Your task to perform on an android device: open app "eBay: The shopping marketplace" (install if not already installed) Image 0: 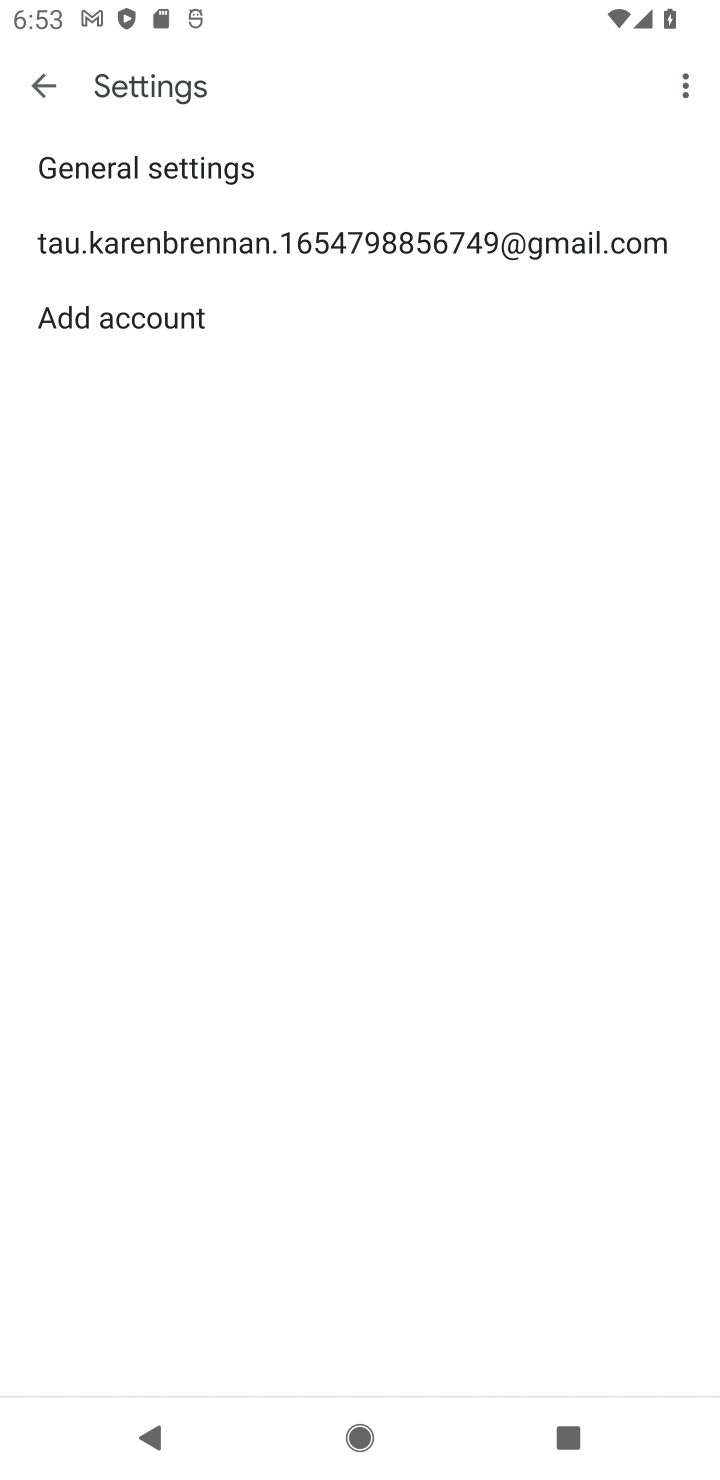
Step 0: press home button
Your task to perform on an android device: open app "eBay: The shopping marketplace" (install if not already installed) Image 1: 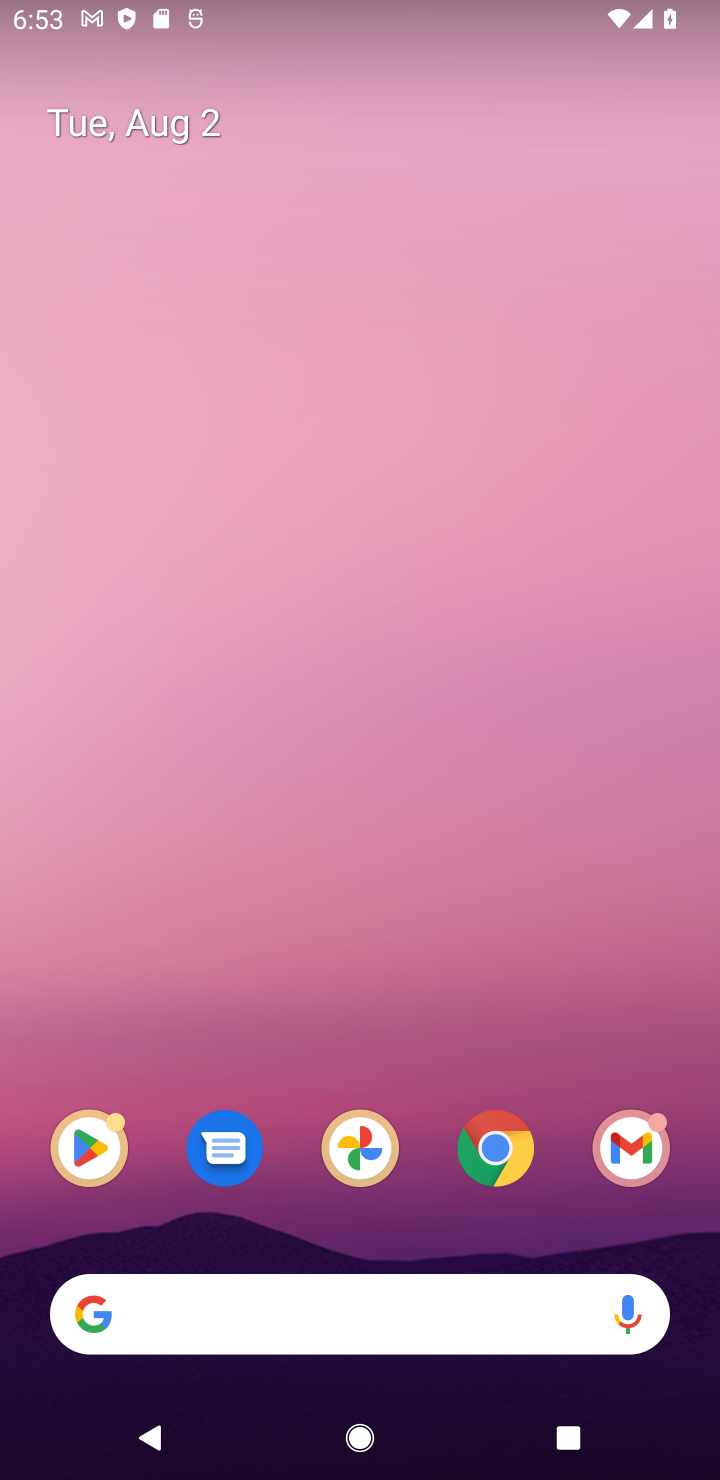
Step 1: drag from (566, 1138) to (395, 65)
Your task to perform on an android device: open app "eBay: The shopping marketplace" (install if not already installed) Image 2: 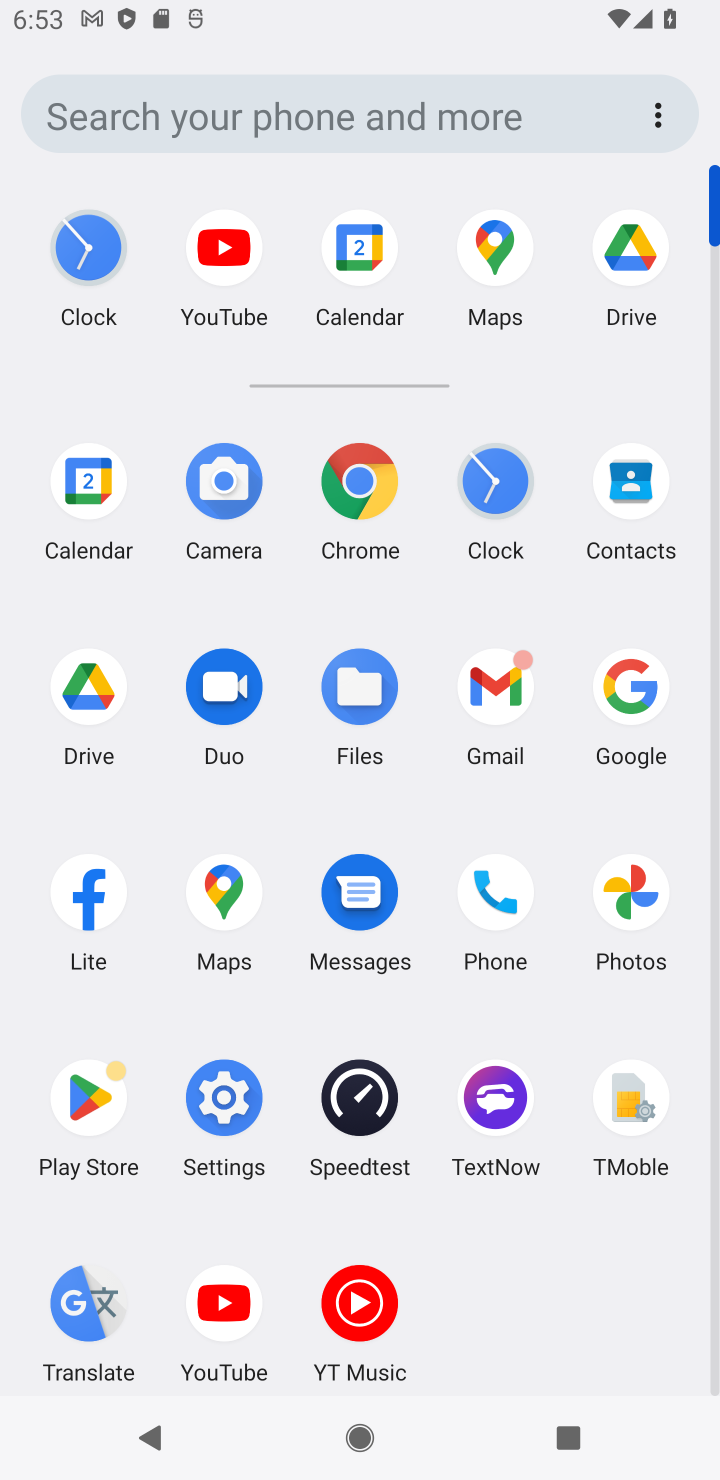
Step 2: click (206, 1320)
Your task to perform on an android device: open app "eBay: The shopping marketplace" (install if not already installed) Image 3: 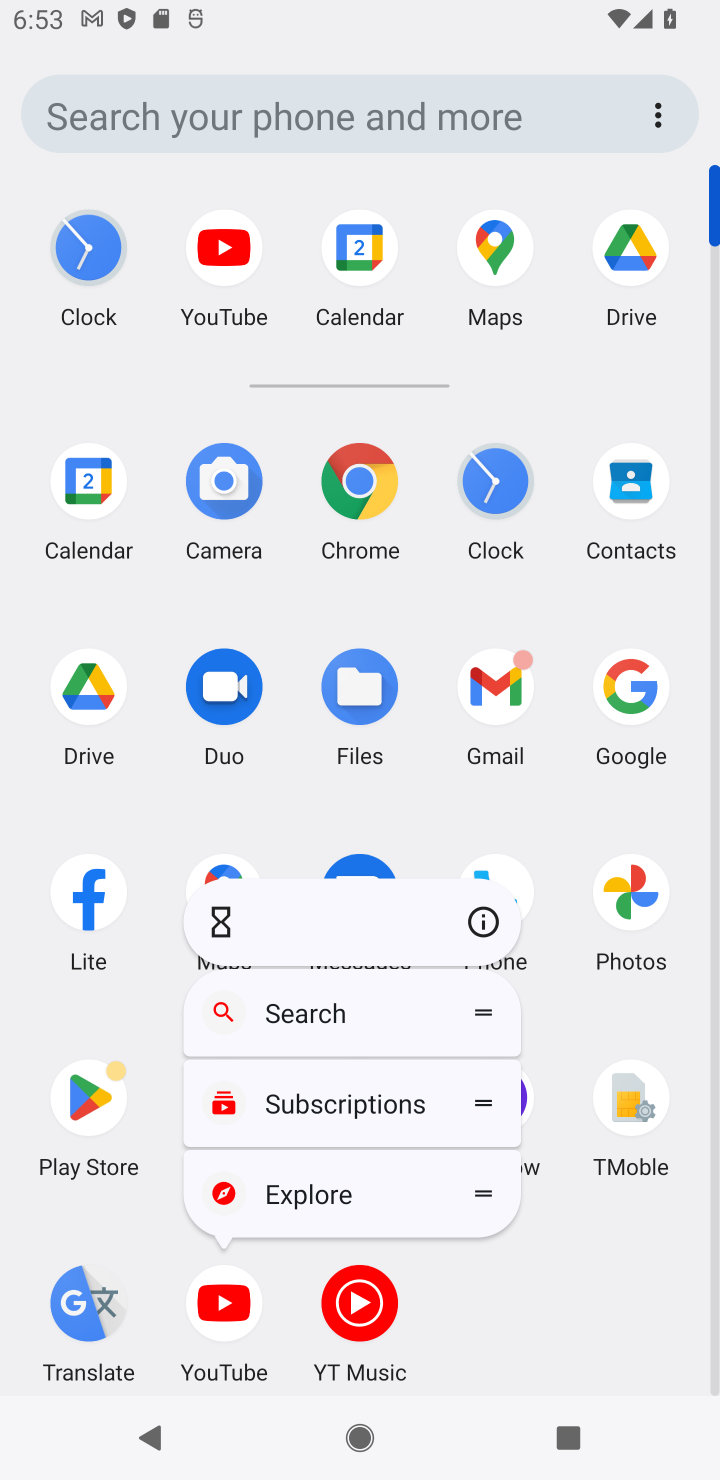
Step 3: click (81, 1090)
Your task to perform on an android device: open app "eBay: The shopping marketplace" (install if not already installed) Image 4: 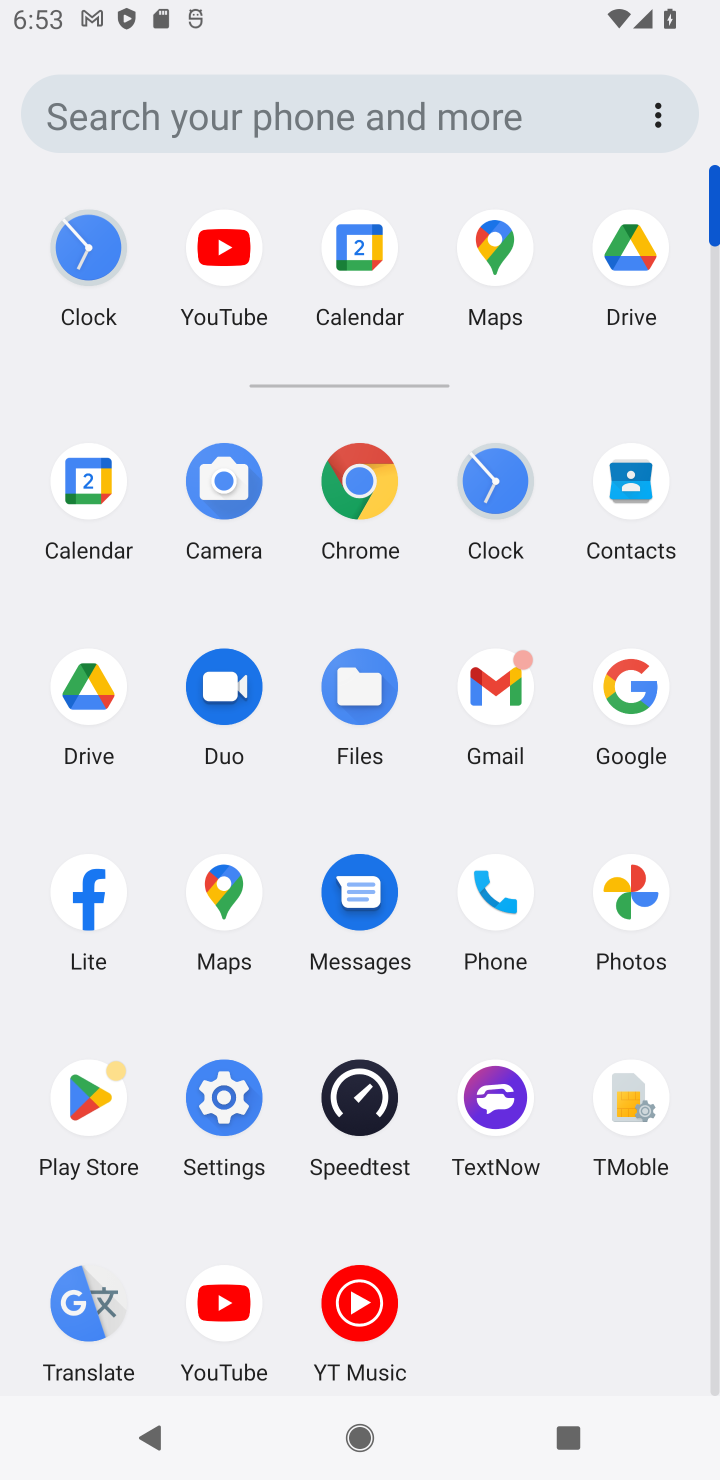
Step 4: click (81, 1090)
Your task to perform on an android device: open app "eBay: The shopping marketplace" (install if not already installed) Image 5: 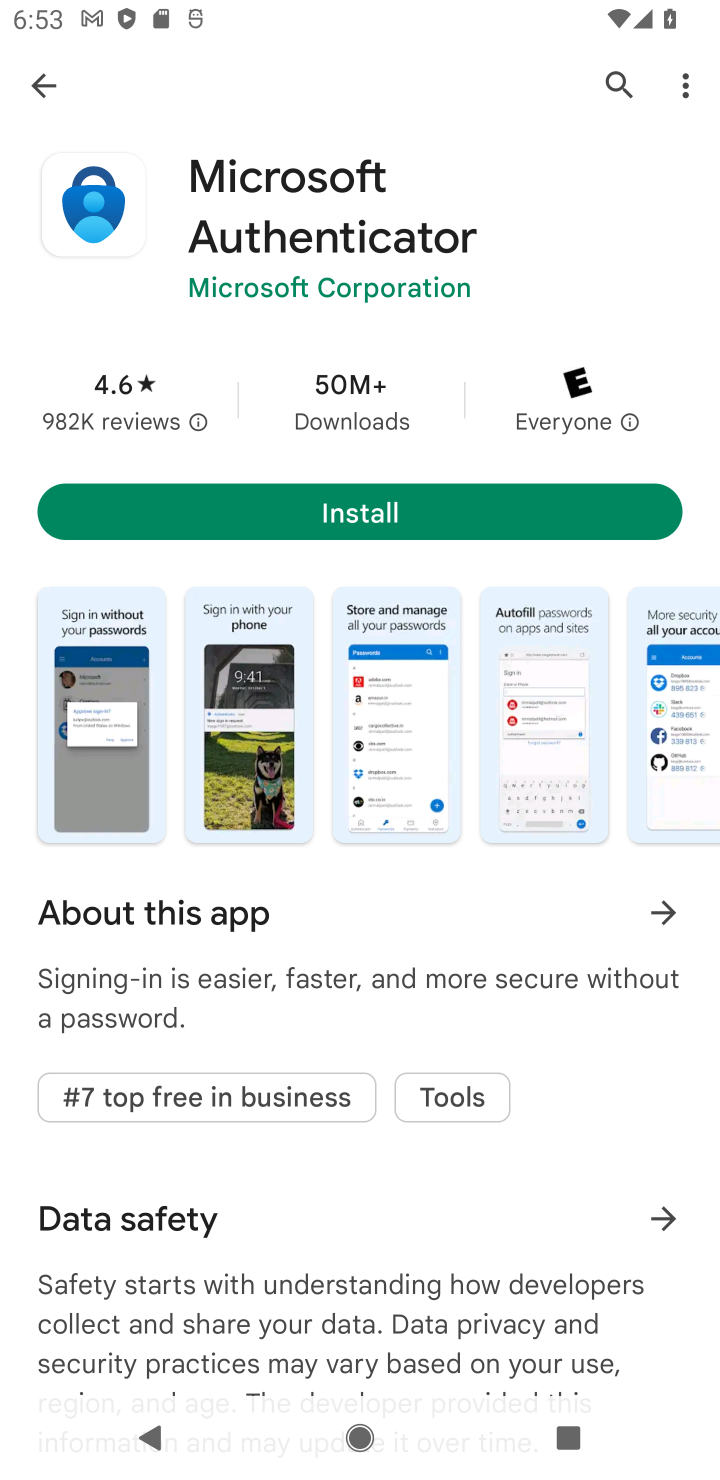
Step 5: press back button
Your task to perform on an android device: open app "eBay: The shopping marketplace" (install if not already installed) Image 6: 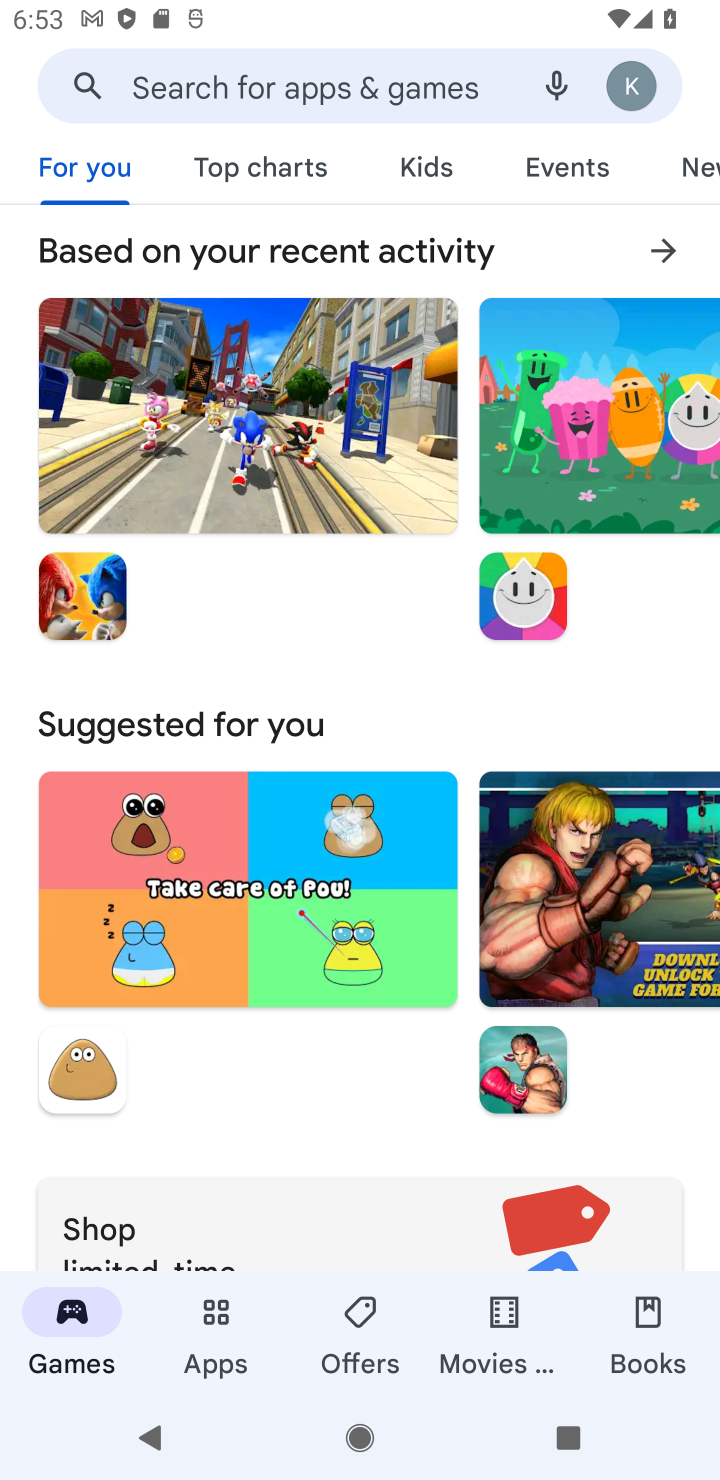
Step 6: click (195, 77)
Your task to perform on an android device: open app "eBay: The shopping marketplace" (install if not already installed) Image 7: 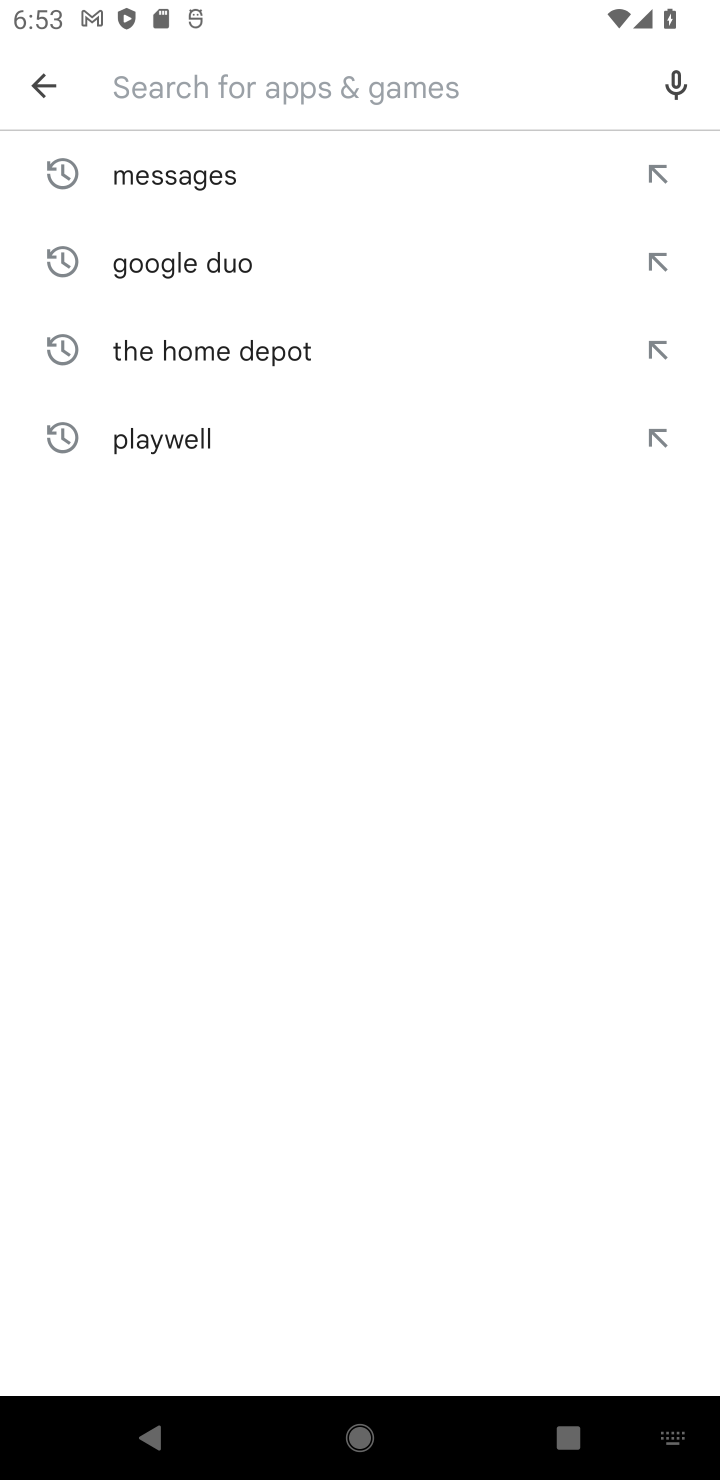
Step 7: type "eBay: The shopping marketplace"
Your task to perform on an android device: open app "eBay: The shopping marketplace" (install if not already installed) Image 8: 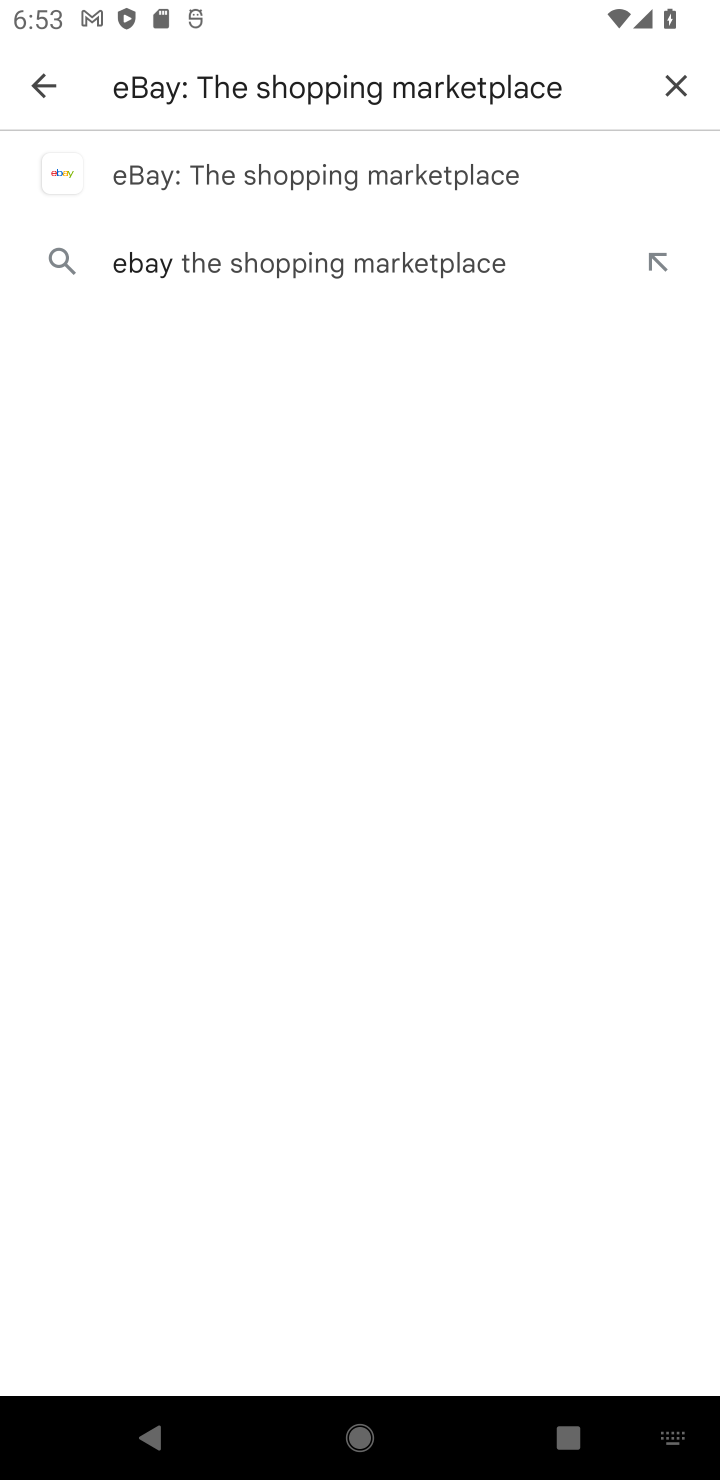
Step 8: click (356, 201)
Your task to perform on an android device: open app "eBay: The shopping marketplace" (install if not already installed) Image 9: 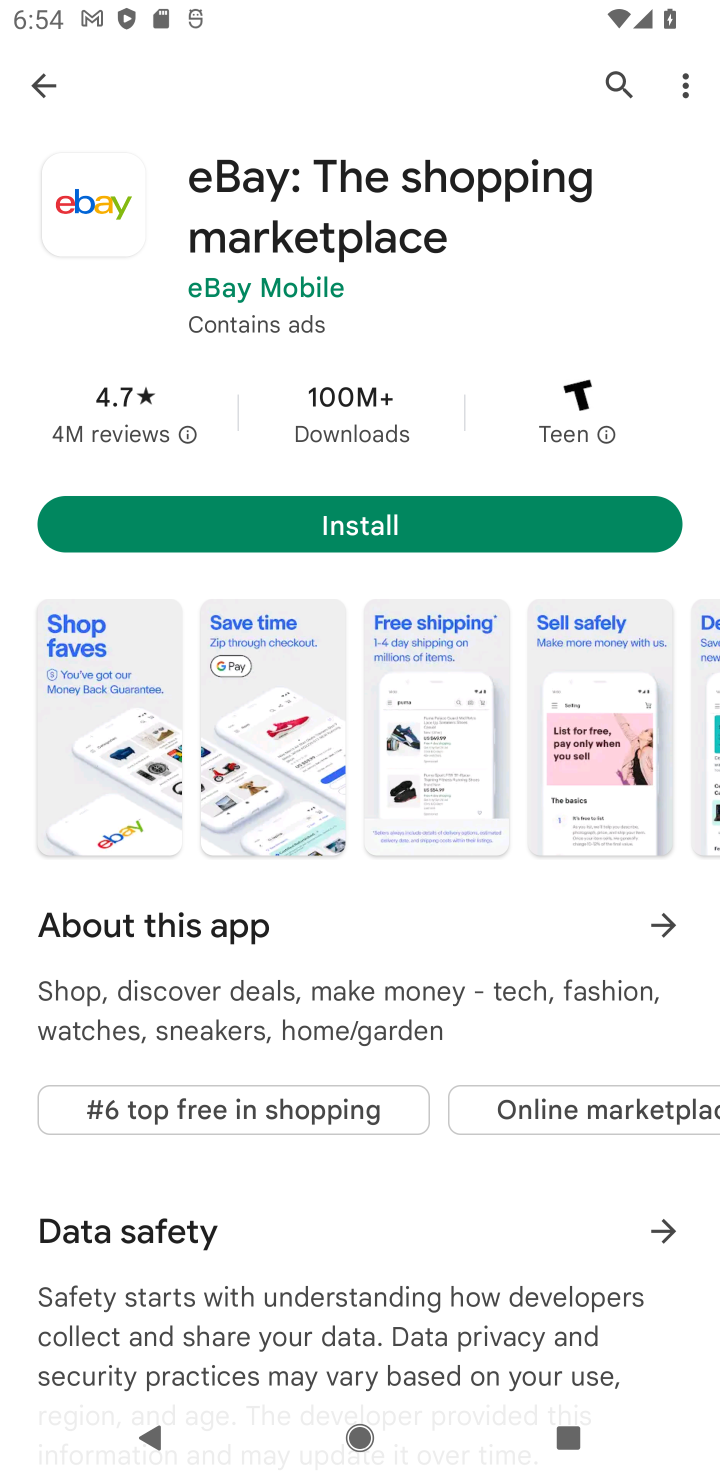
Step 9: task complete